Your task to perform on an android device: turn off airplane mode Image 0: 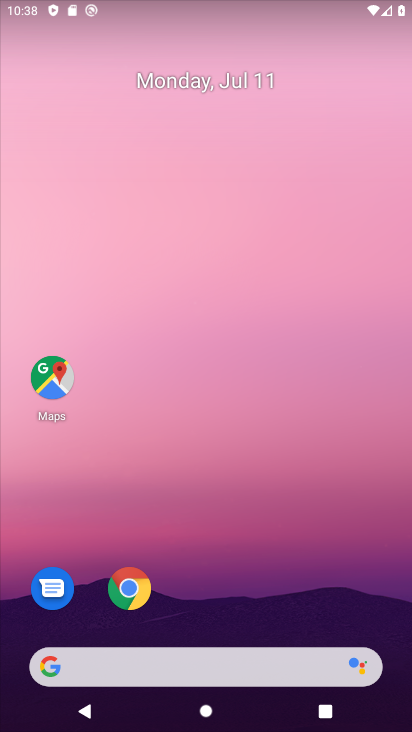
Step 0: drag from (253, 576) to (227, 239)
Your task to perform on an android device: turn off airplane mode Image 1: 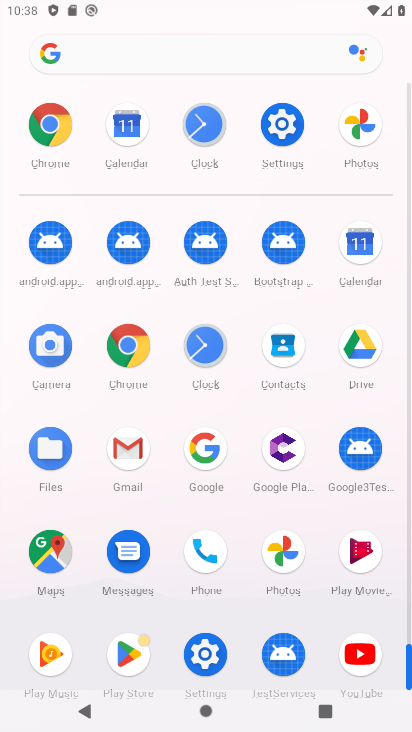
Step 1: click (284, 118)
Your task to perform on an android device: turn off airplane mode Image 2: 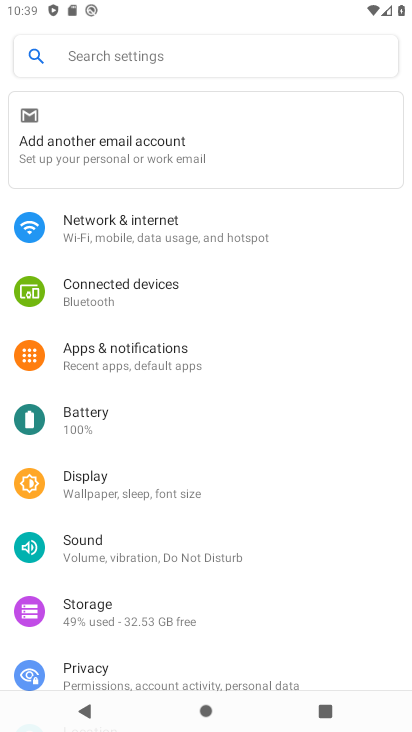
Step 2: click (132, 228)
Your task to perform on an android device: turn off airplane mode Image 3: 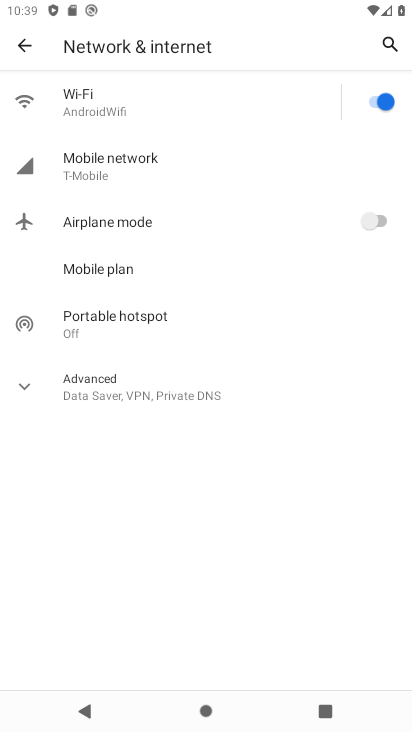
Step 3: task complete